Your task to perform on an android device: Search for bose soundsport free on costco, select the first entry, add it to the cart, then select checkout. Image 0: 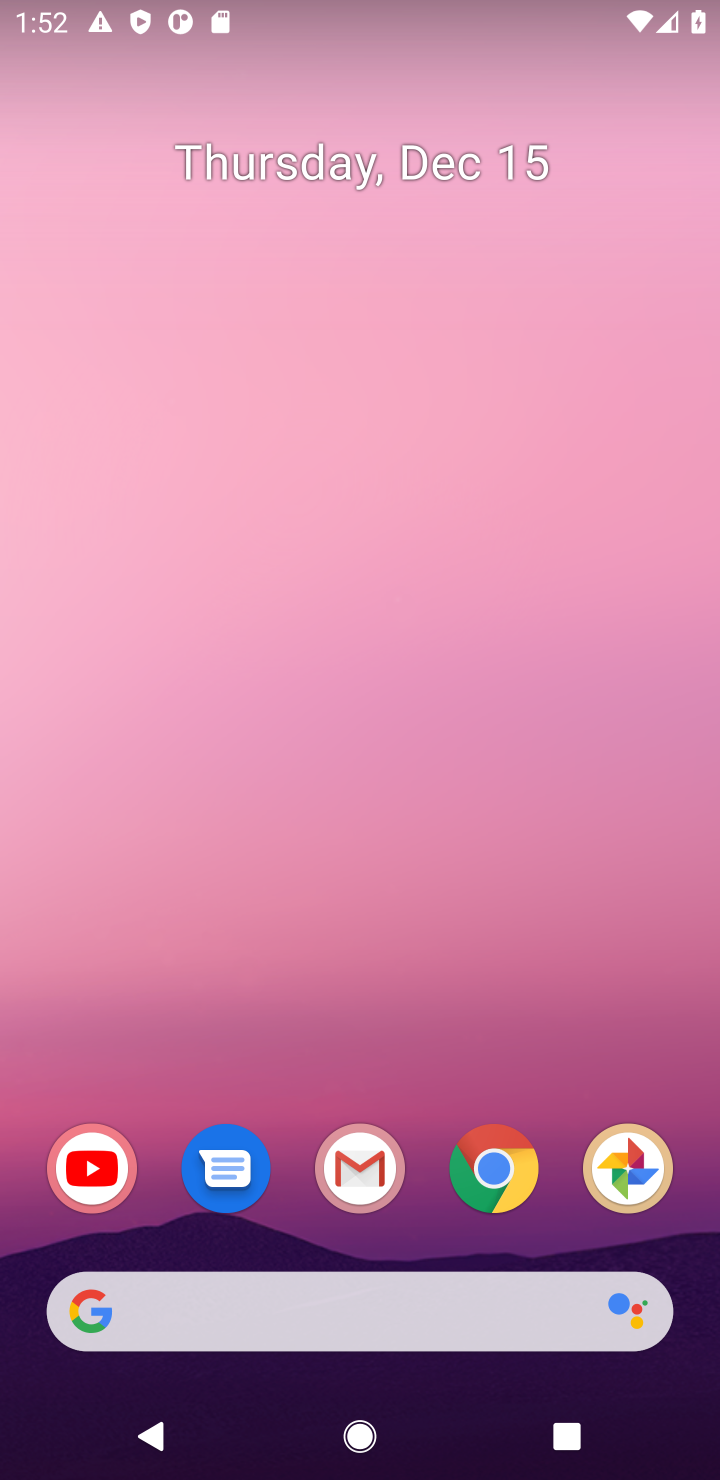
Step 0: click (477, 1186)
Your task to perform on an android device: Search for bose soundsport free on costco, select the first entry, add it to the cart, then select checkout. Image 1: 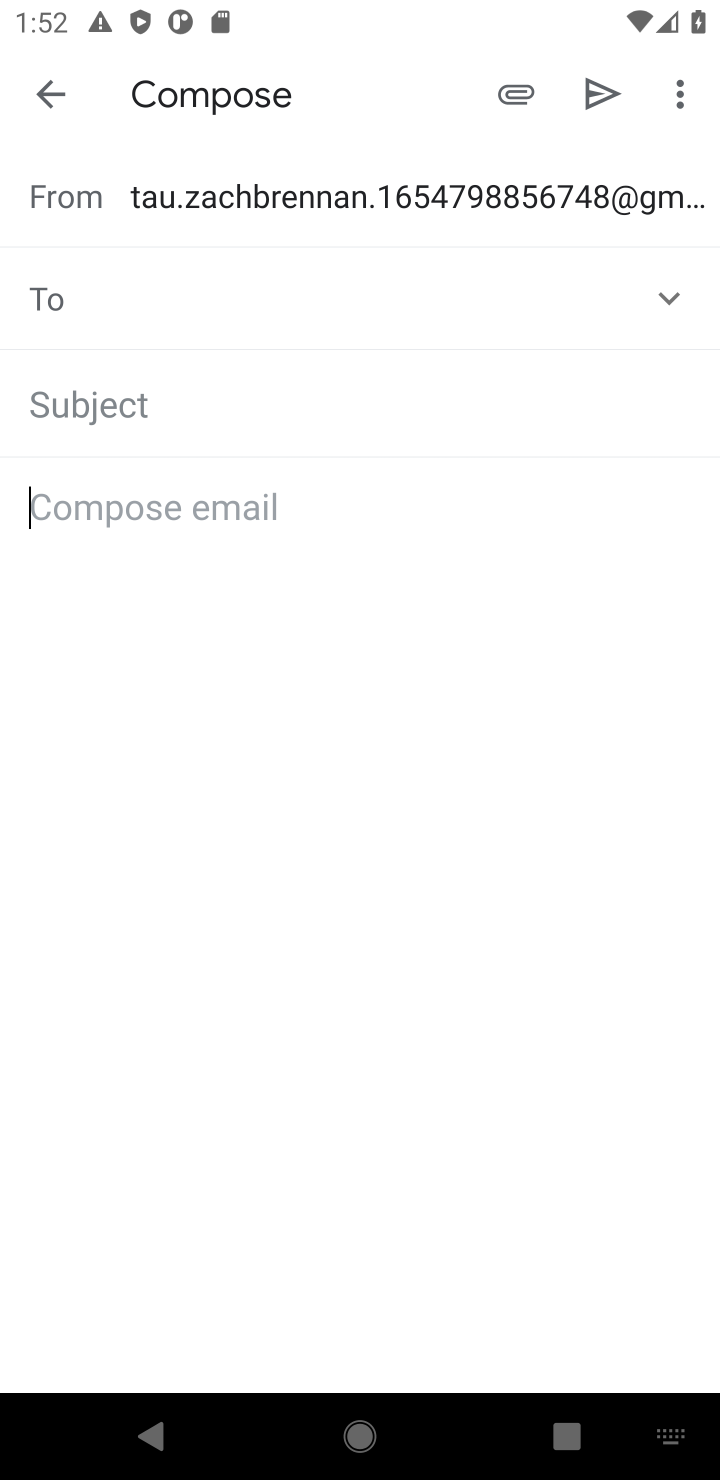
Step 1: press home button
Your task to perform on an android device: Search for bose soundsport free on costco, select the first entry, add it to the cart, then select checkout. Image 2: 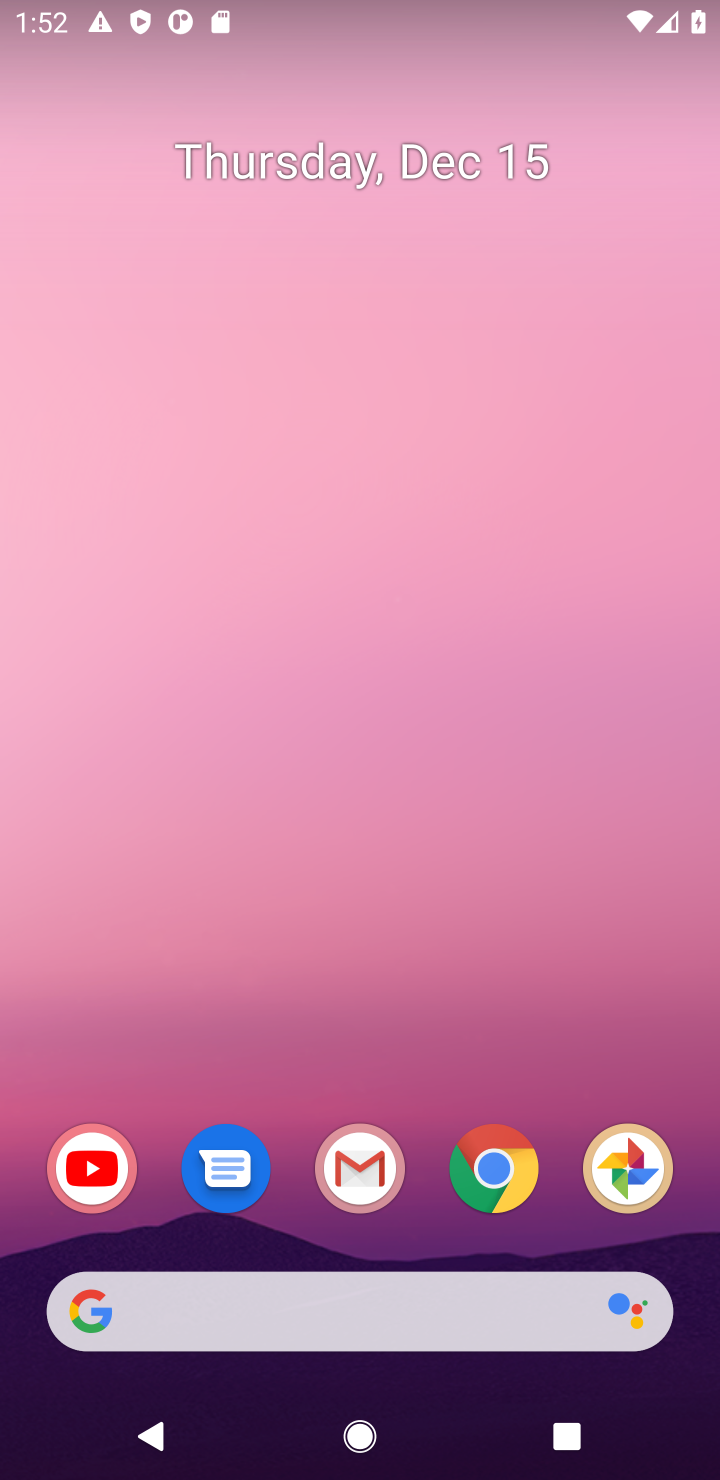
Step 2: click (504, 1174)
Your task to perform on an android device: Search for bose soundsport free on costco, select the first entry, add it to the cart, then select checkout. Image 3: 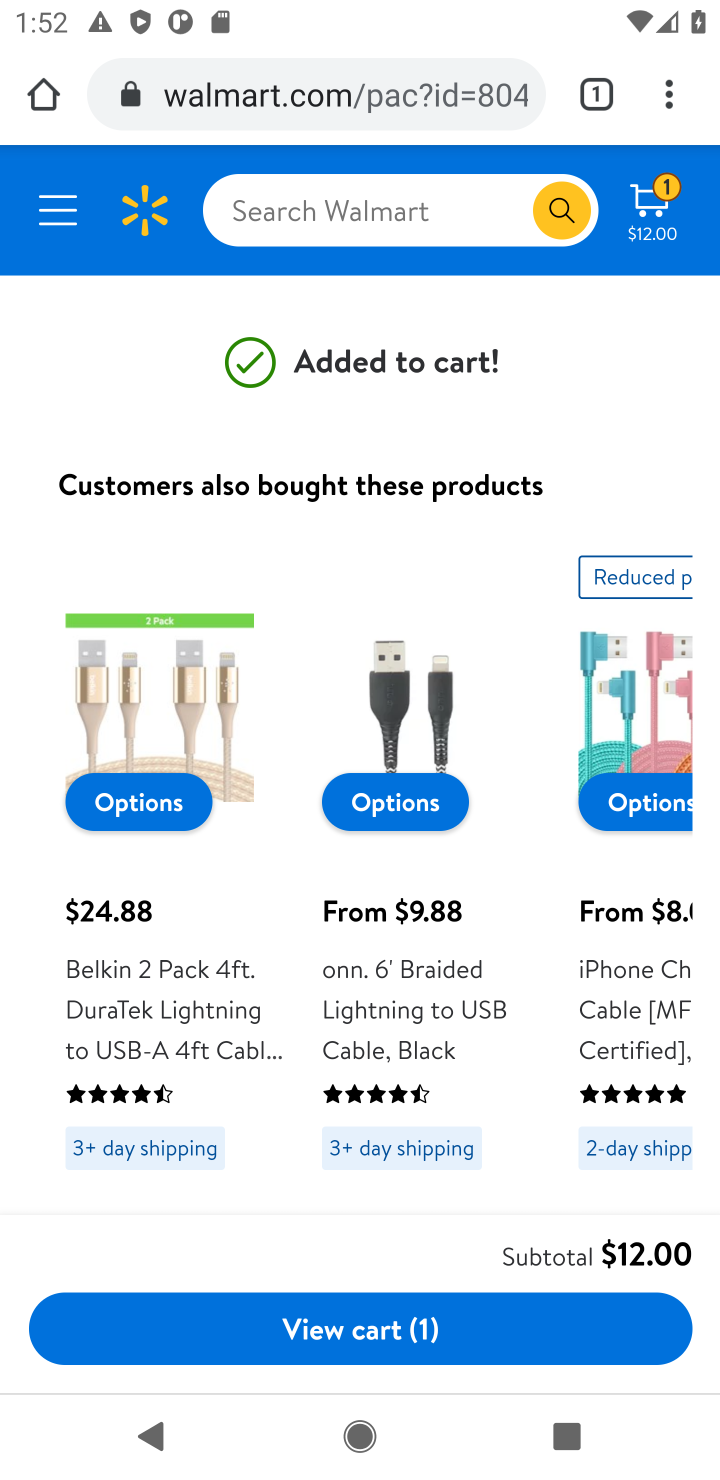
Step 3: click (384, 82)
Your task to perform on an android device: Search for bose soundsport free on costco, select the first entry, add it to the cart, then select checkout. Image 4: 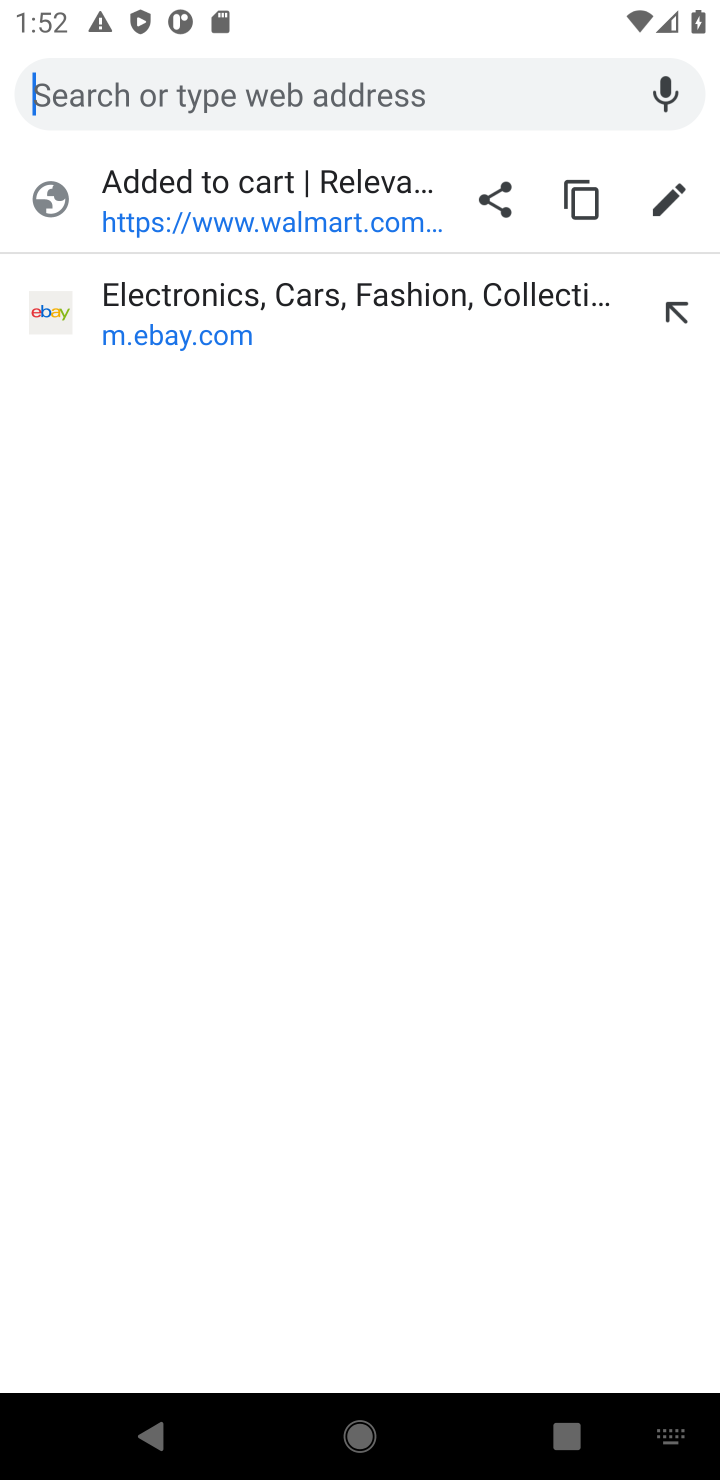
Step 4: press enter
Your task to perform on an android device: Search for bose soundsport free on costco, select the first entry, add it to the cart, then select checkout. Image 5: 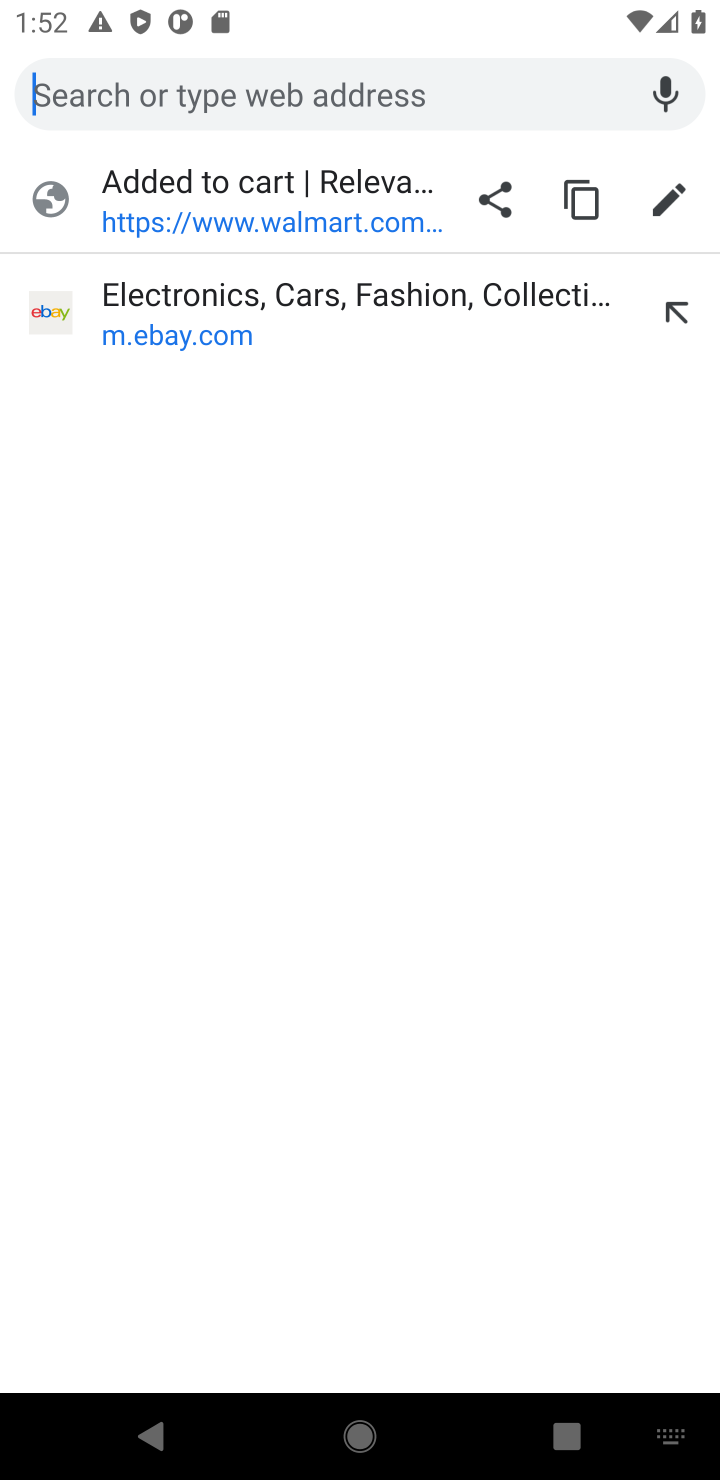
Step 5: type "costco"
Your task to perform on an android device: Search for bose soundsport free on costco, select the first entry, add it to the cart, then select checkout. Image 6: 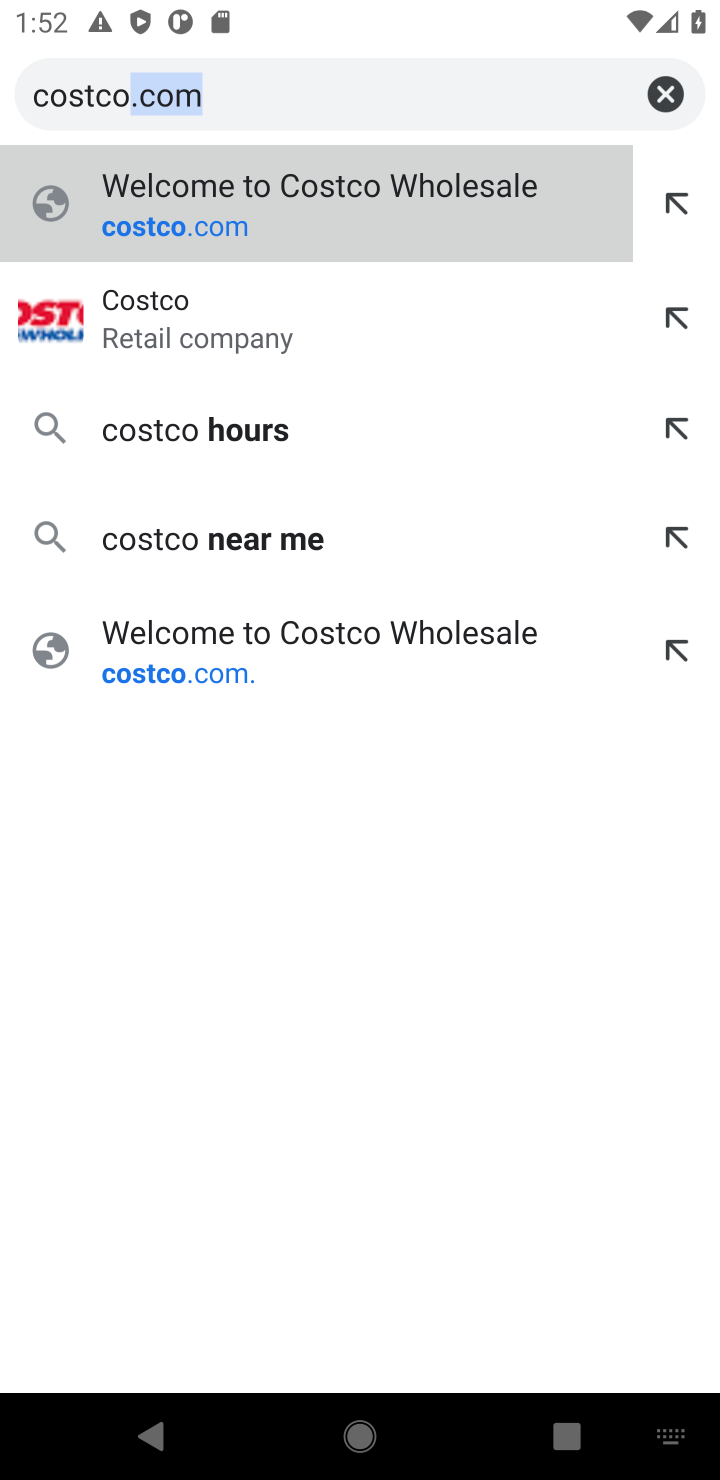
Step 6: click (547, 90)
Your task to perform on an android device: Search for bose soundsport free on costco, select the first entry, add it to the cart, then select checkout. Image 7: 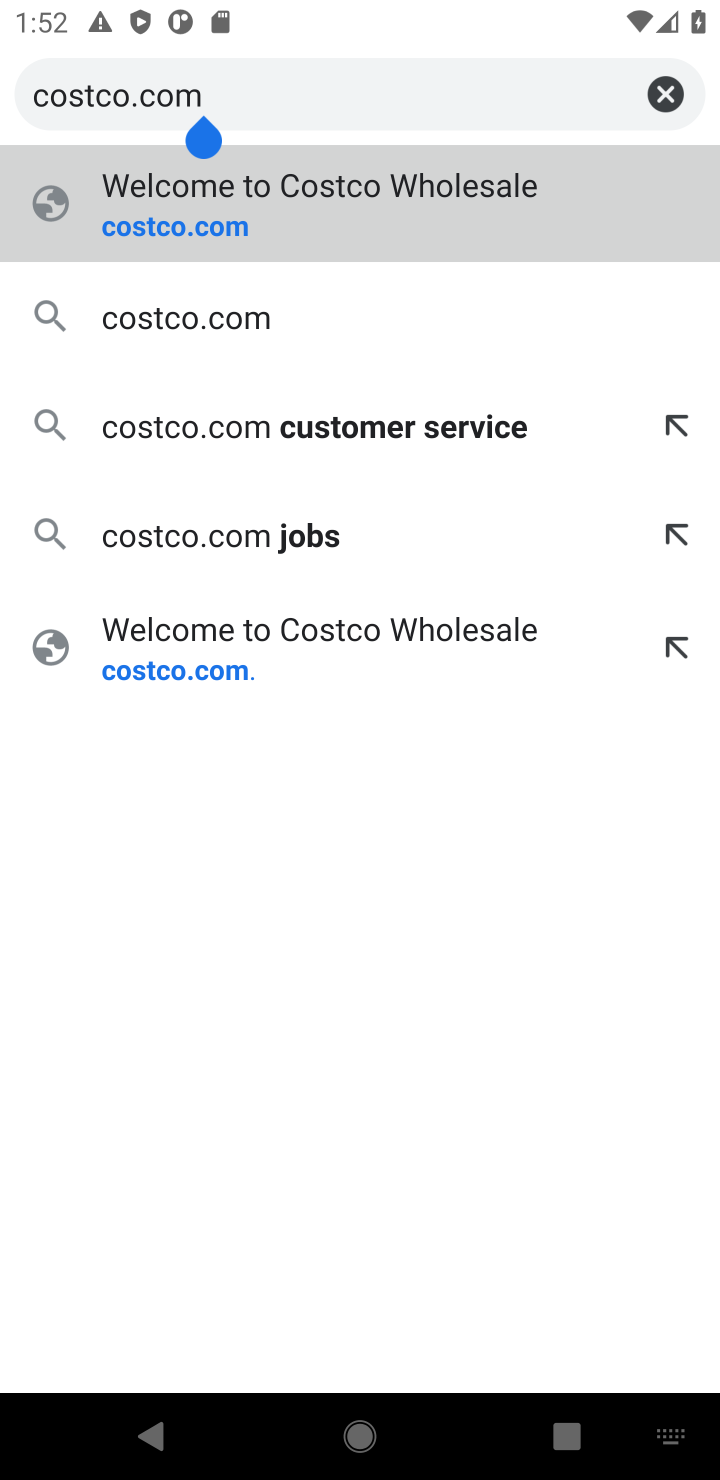
Step 7: press enter
Your task to perform on an android device: Search for bose soundsport free on costco, select the first entry, add it to the cart, then select checkout. Image 8: 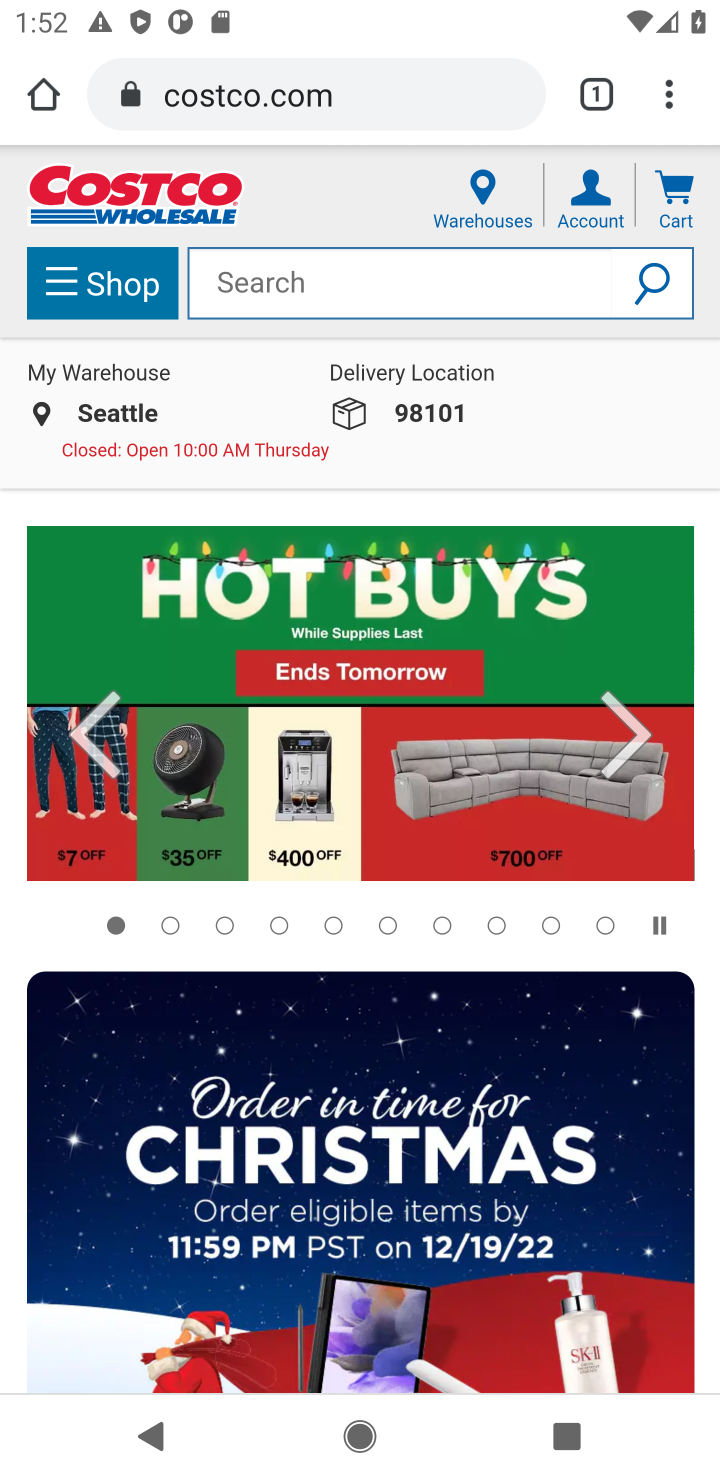
Step 8: click (380, 290)
Your task to perform on an android device: Search for bose soundsport free on costco, select the first entry, add it to the cart, then select checkout. Image 9: 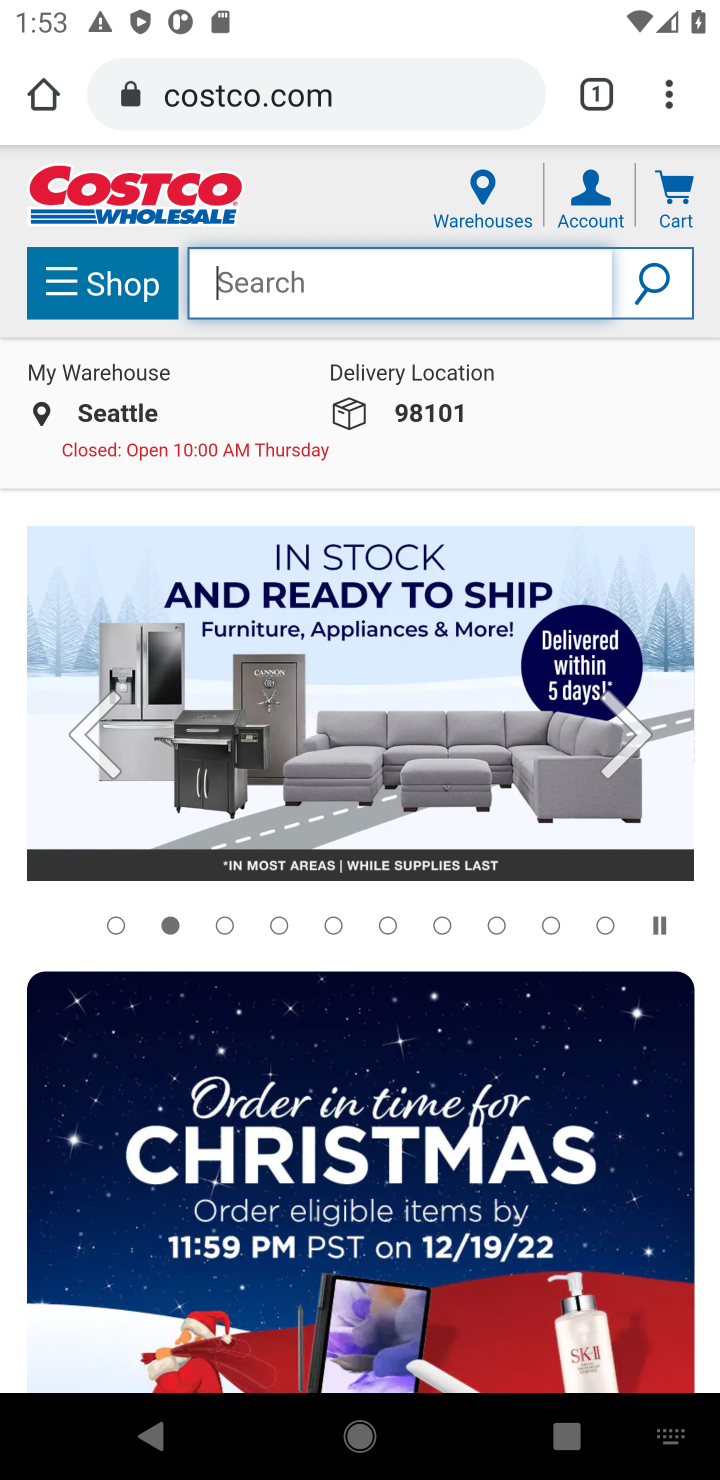
Step 9: press enter
Your task to perform on an android device: Search for bose soundsport free on costco, select the first entry, add it to the cart, then select checkout. Image 10: 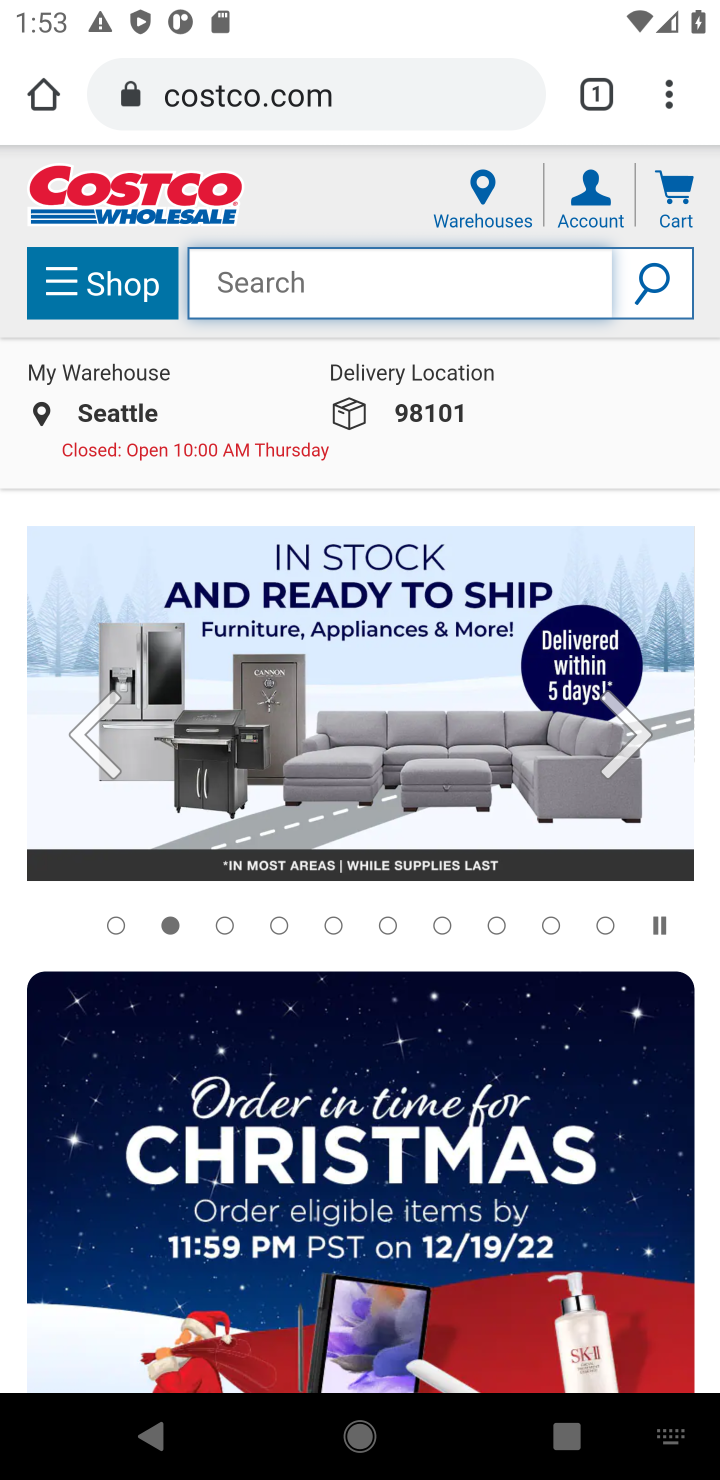
Step 10: type "bose soundsport free"
Your task to perform on an android device: Search for bose soundsport free on costco, select the first entry, add it to the cart, then select checkout. Image 11: 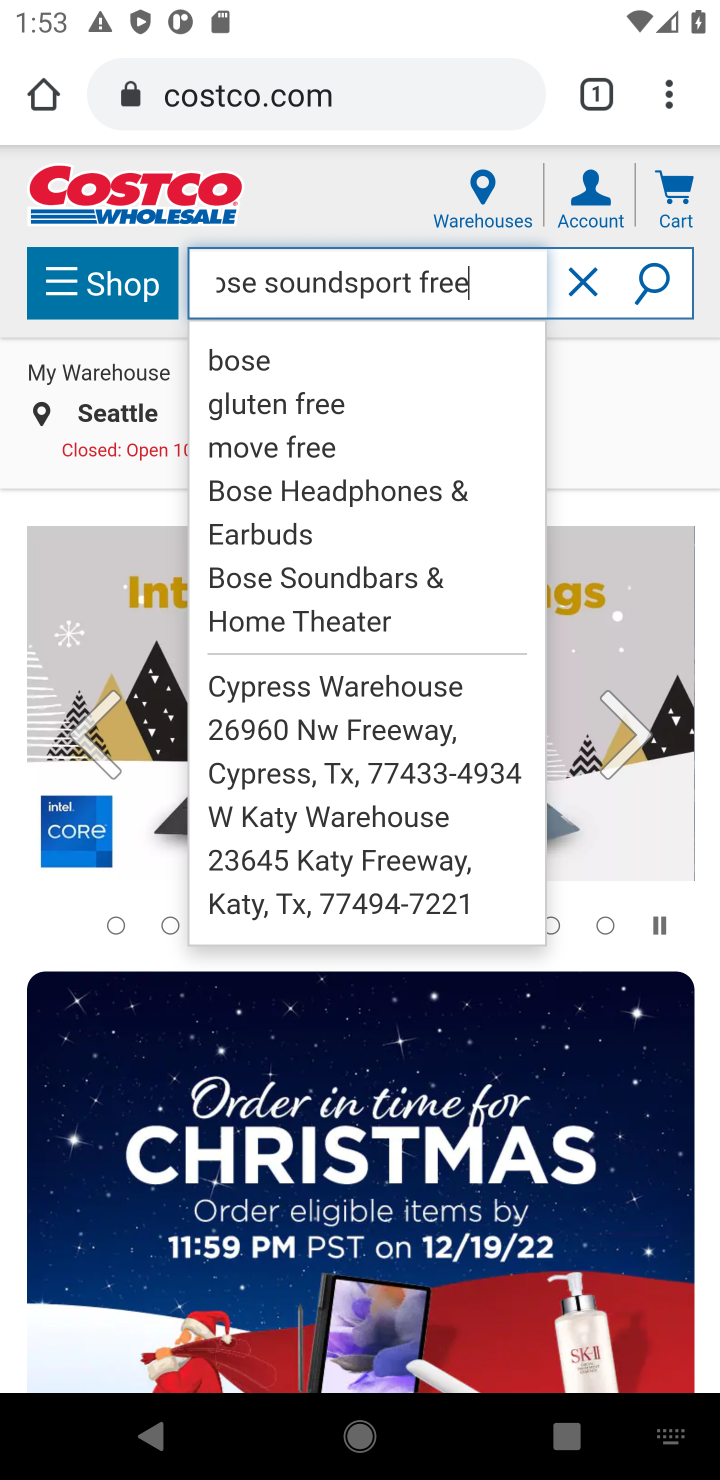
Step 11: click (655, 281)
Your task to perform on an android device: Search for bose soundsport free on costco, select the first entry, add it to the cart, then select checkout. Image 12: 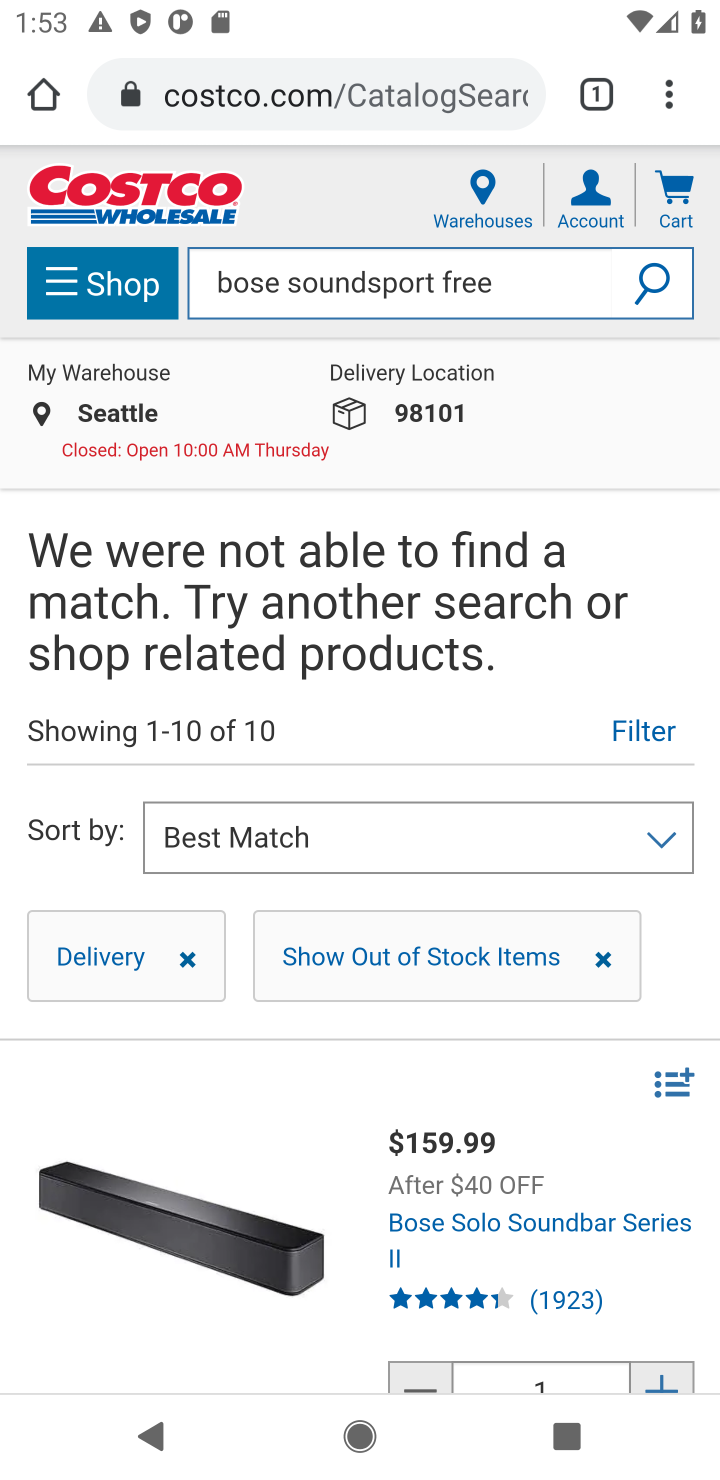
Step 12: task complete